Your task to perform on an android device: snooze an email in the gmail app Image 0: 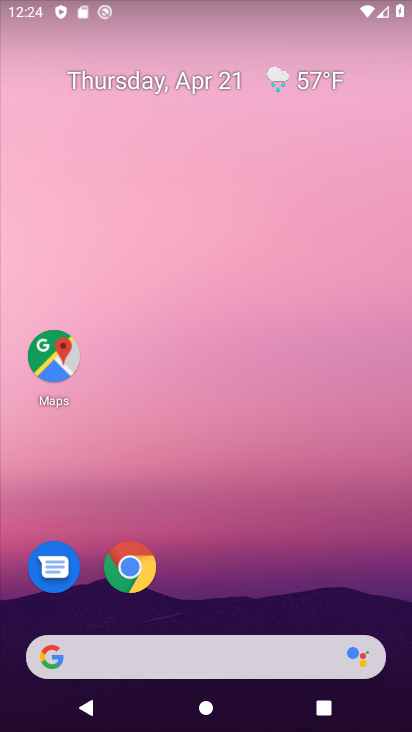
Step 0: drag from (350, 589) to (357, 119)
Your task to perform on an android device: snooze an email in the gmail app Image 1: 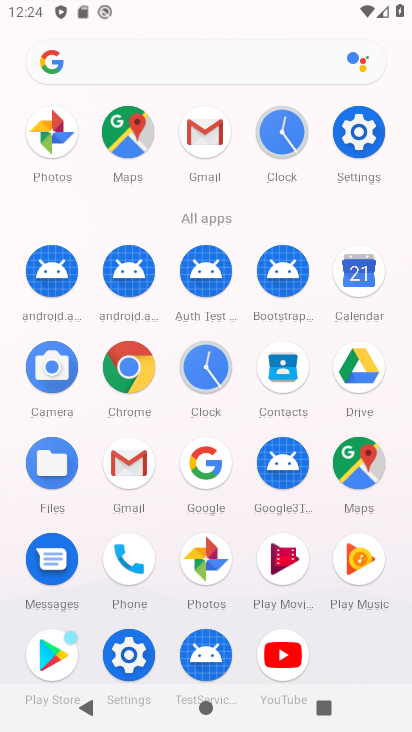
Step 1: click (134, 460)
Your task to perform on an android device: snooze an email in the gmail app Image 2: 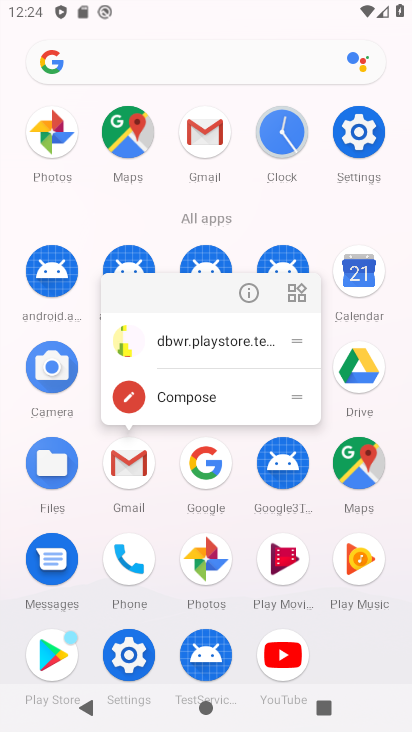
Step 2: click (132, 470)
Your task to perform on an android device: snooze an email in the gmail app Image 3: 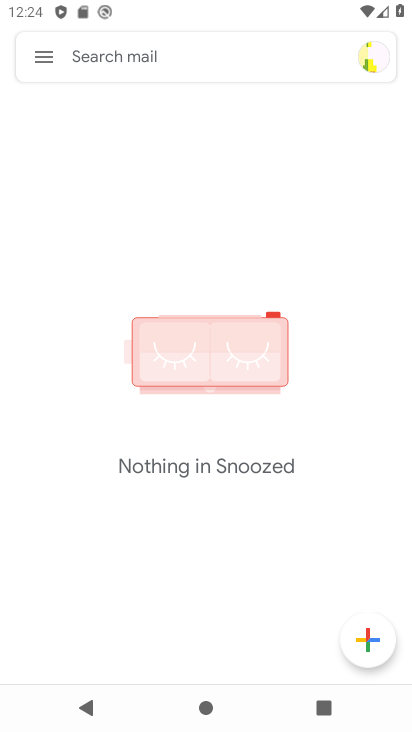
Step 3: task complete